Your task to perform on an android device: change your default location settings in chrome Image 0: 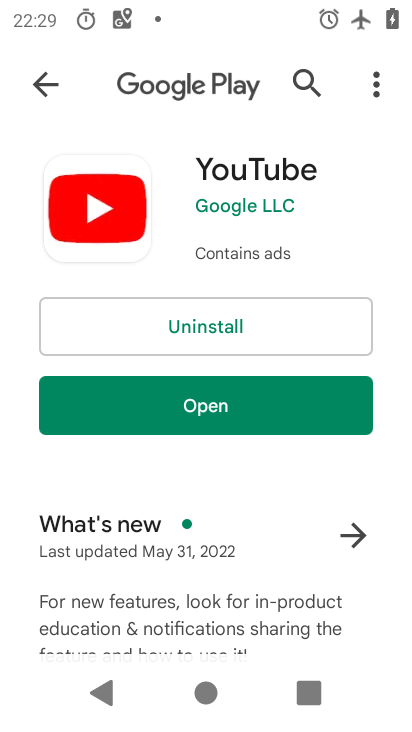
Step 0: drag from (209, 537) to (211, 76)
Your task to perform on an android device: change your default location settings in chrome Image 1: 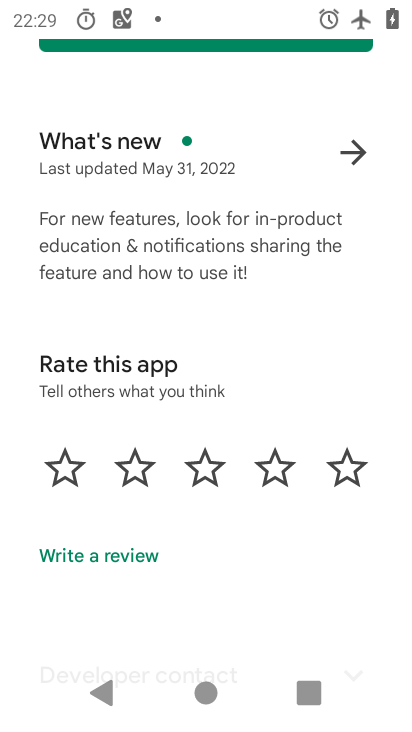
Step 1: press home button
Your task to perform on an android device: change your default location settings in chrome Image 2: 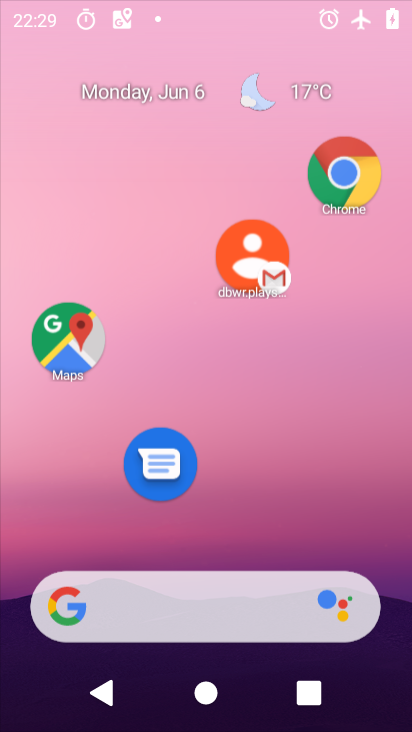
Step 2: drag from (277, 487) to (267, 165)
Your task to perform on an android device: change your default location settings in chrome Image 3: 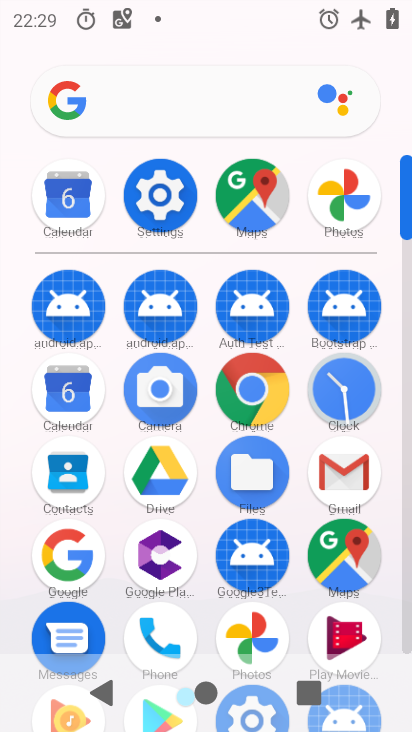
Step 3: click (246, 389)
Your task to perform on an android device: change your default location settings in chrome Image 4: 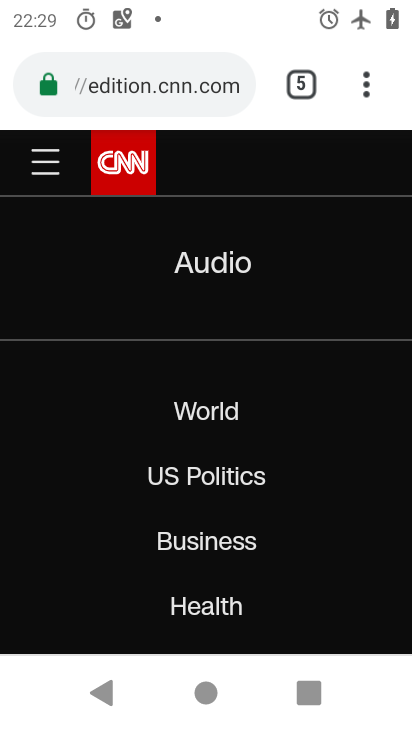
Step 4: drag from (209, 269) to (406, 132)
Your task to perform on an android device: change your default location settings in chrome Image 5: 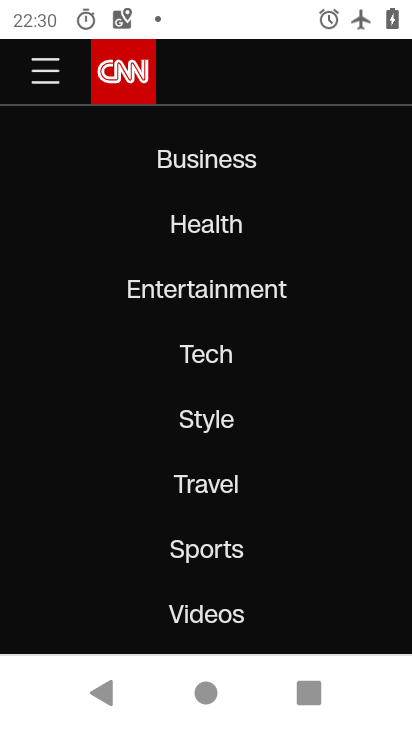
Step 5: drag from (358, 80) to (357, 513)
Your task to perform on an android device: change your default location settings in chrome Image 6: 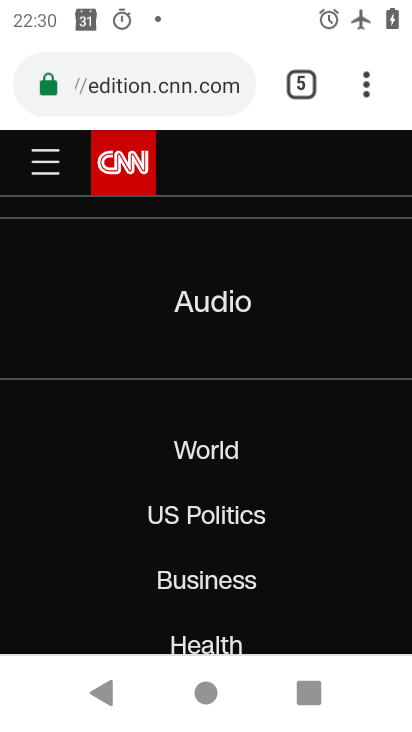
Step 6: drag from (365, 80) to (111, 497)
Your task to perform on an android device: change your default location settings in chrome Image 7: 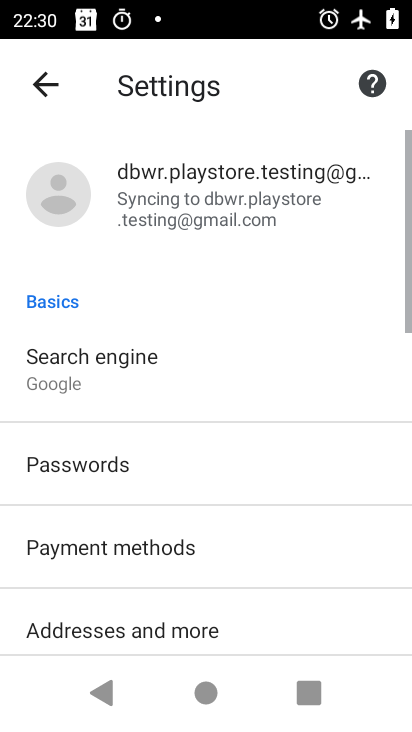
Step 7: drag from (178, 494) to (225, 97)
Your task to perform on an android device: change your default location settings in chrome Image 8: 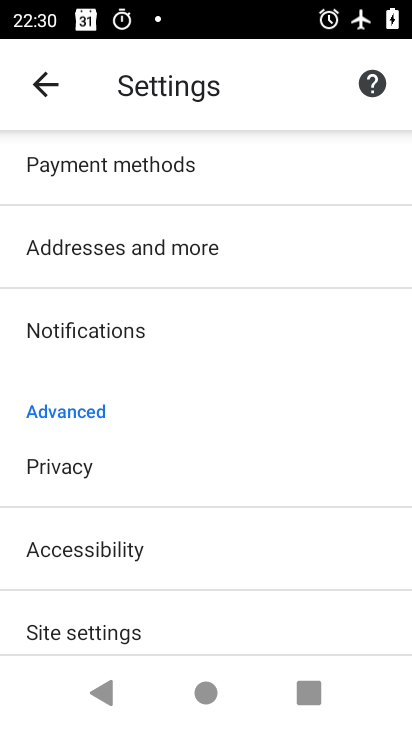
Step 8: drag from (199, 591) to (278, 289)
Your task to perform on an android device: change your default location settings in chrome Image 9: 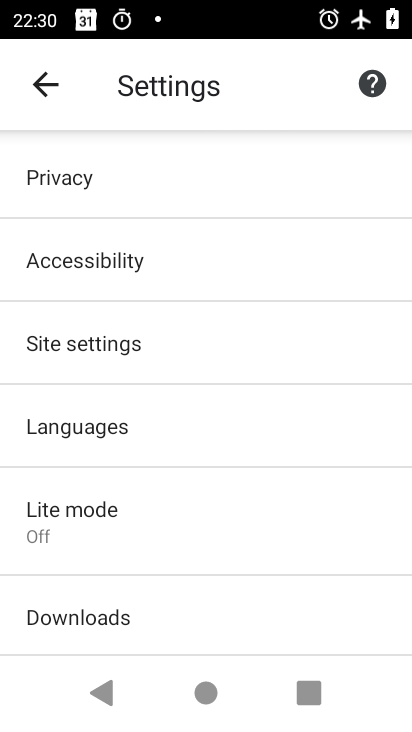
Step 9: click (93, 342)
Your task to perform on an android device: change your default location settings in chrome Image 10: 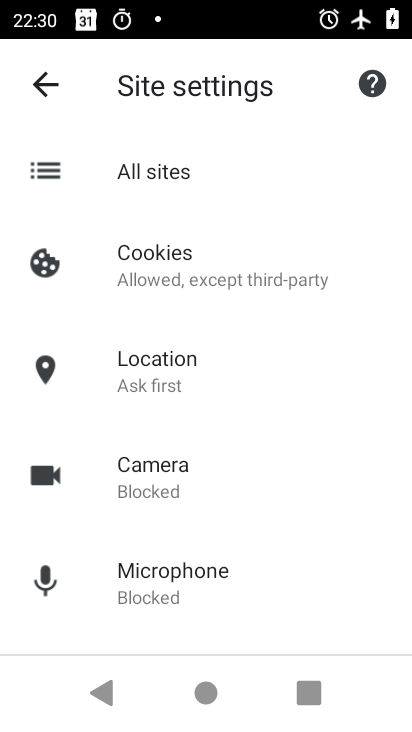
Step 10: click (185, 343)
Your task to perform on an android device: change your default location settings in chrome Image 11: 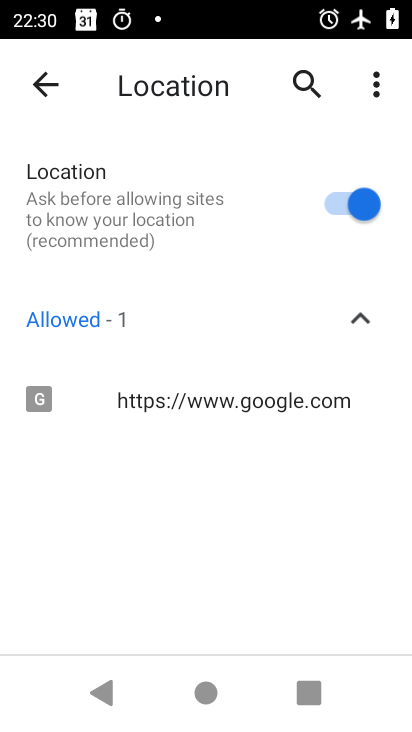
Step 11: click (353, 201)
Your task to perform on an android device: change your default location settings in chrome Image 12: 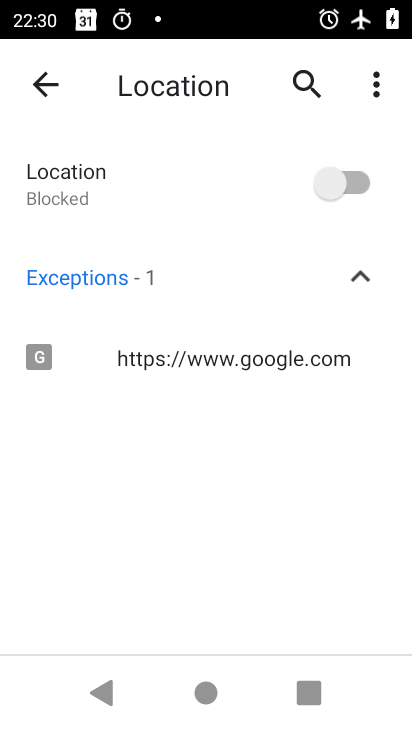
Step 12: task complete